Your task to perform on an android device: turn off wifi Image 0: 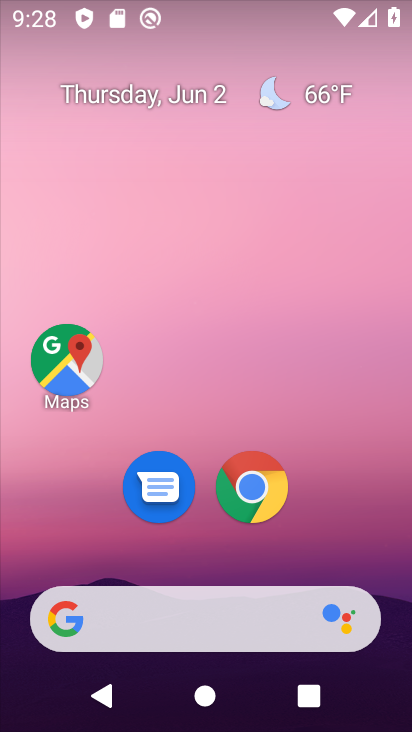
Step 0: drag from (241, 723) to (243, 122)
Your task to perform on an android device: turn off wifi Image 1: 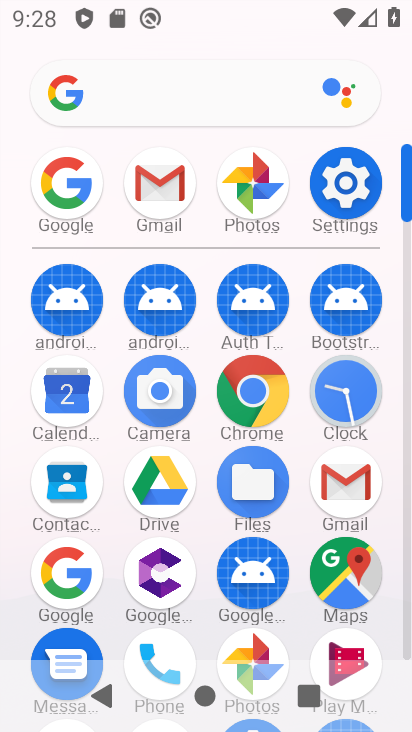
Step 1: click (354, 182)
Your task to perform on an android device: turn off wifi Image 2: 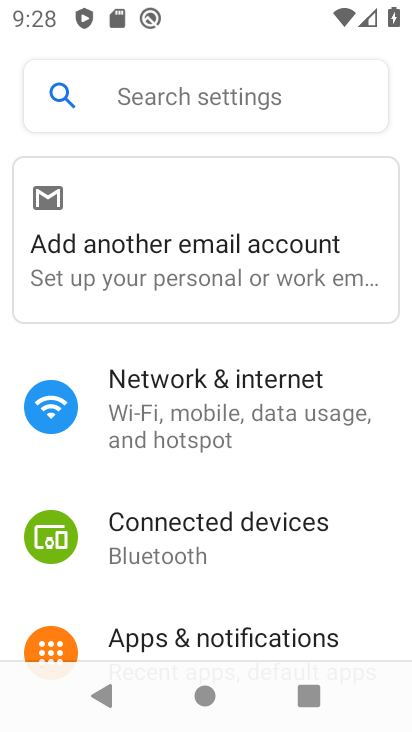
Step 2: click (202, 391)
Your task to perform on an android device: turn off wifi Image 3: 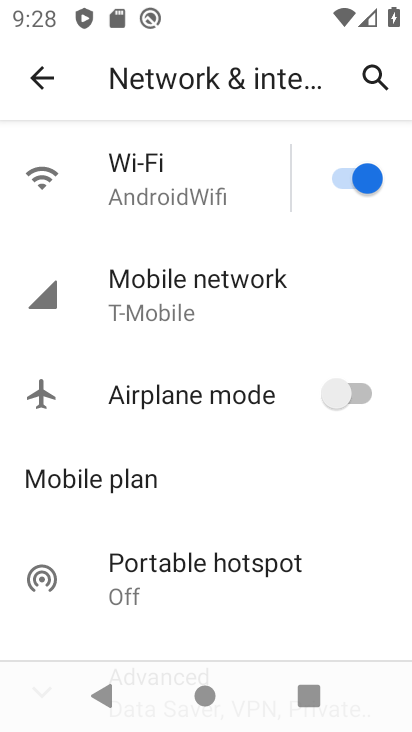
Step 3: click (349, 178)
Your task to perform on an android device: turn off wifi Image 4: 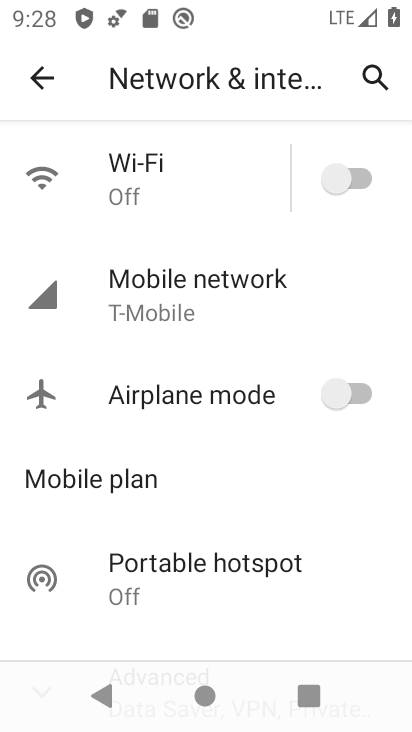
Step 4: task complete